Your task to perform on an android device: Open calendar and show me the fourth week of next month Image 0: 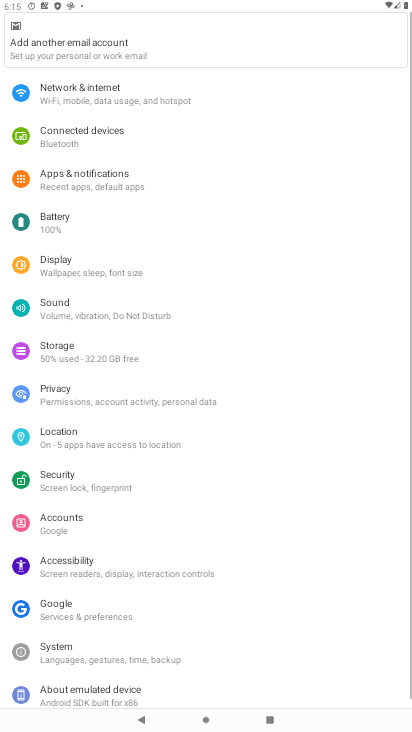
Step 0: drag from (369, 693) to (409, 524)
Your task to perform on an android device: Open calendar and show me the fourth week of next month Image 1: 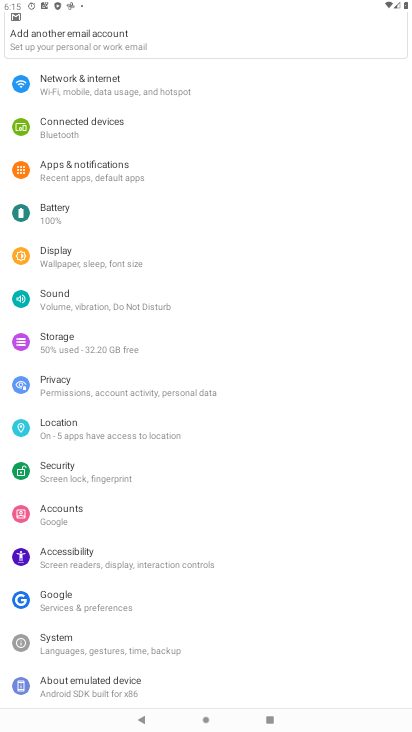
Step 1: press home button
Your task to perform on an android device: Open calendar and show me the fourth week of next month Image 2: 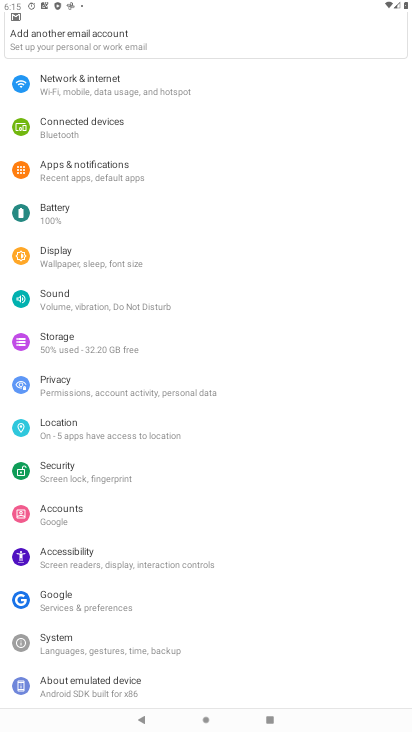
Step 2: drag from (409, 524) to (409, 306)
Your task to perform on an android device: Open calendar and show me the fourth week of next month Image 3: 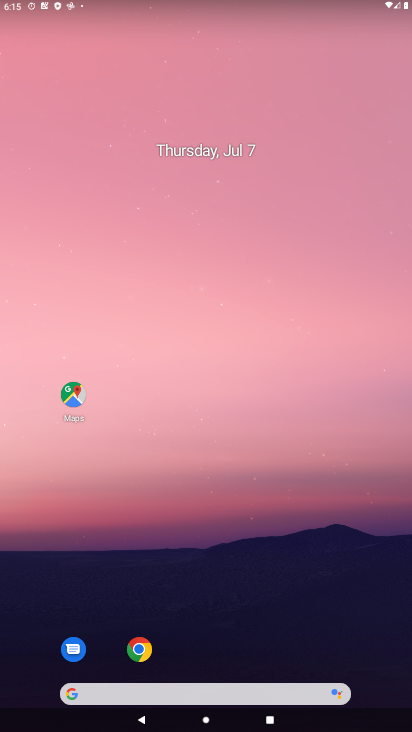
Step 3: drag from (373, 656) to (326, 74)
Your task to perform on an android device: Open calendar and show me the fourth week of next month Image 4: 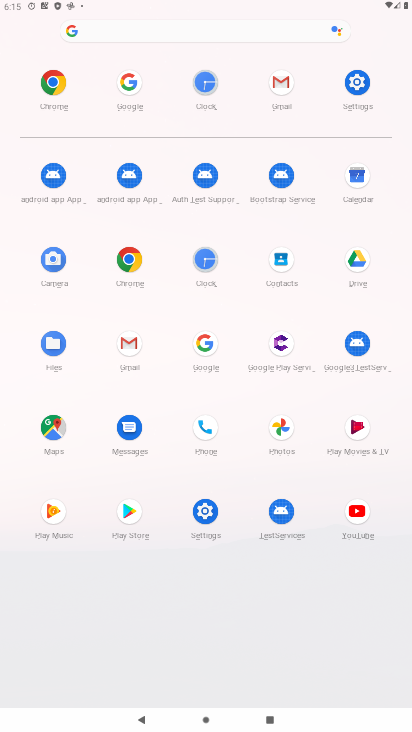
Step 4: click (353, 178)
Your task to perform on an android device: Open calendar and show me the fourth week of next month Image 5: 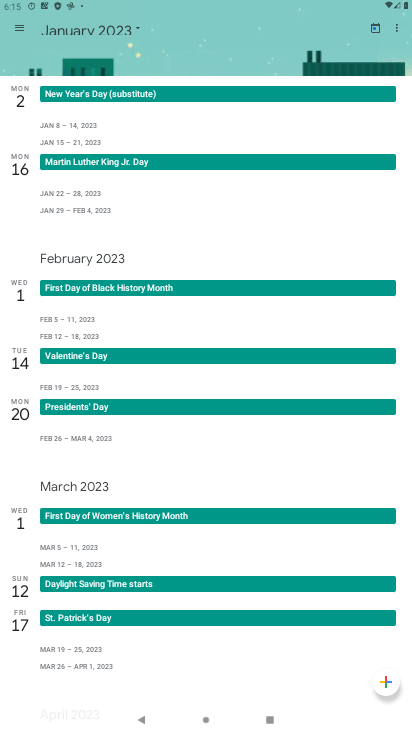
Step 5: click (74, 32)
Your task to perform on an android device: Open calendar and show me the fourth week of next month Image 6: 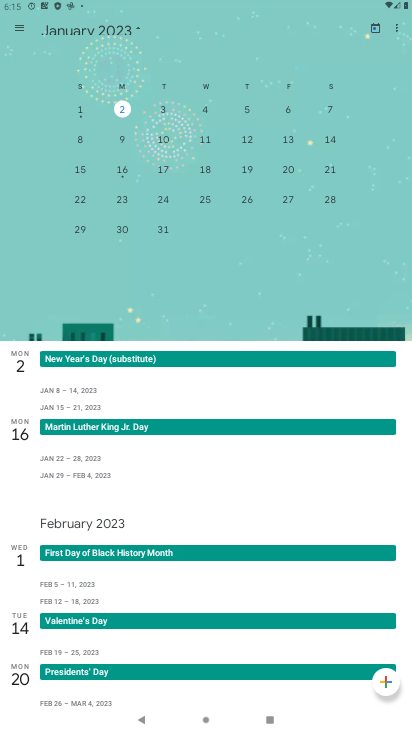
Step 6: drag from (306, 187) to (20, 186)
Your task to perform on an android device: Open calendar and show me the fourth week of next month Image 7: 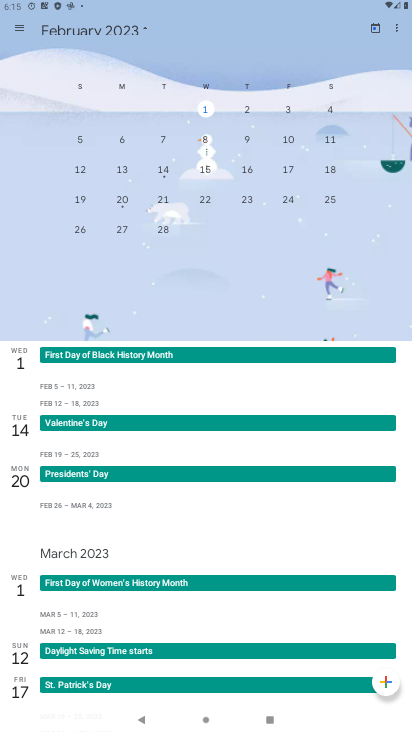
Step 7: click (162, 229)
Your task to perform on an android device: Open calendar and show me the fourth week of next month Image 8: 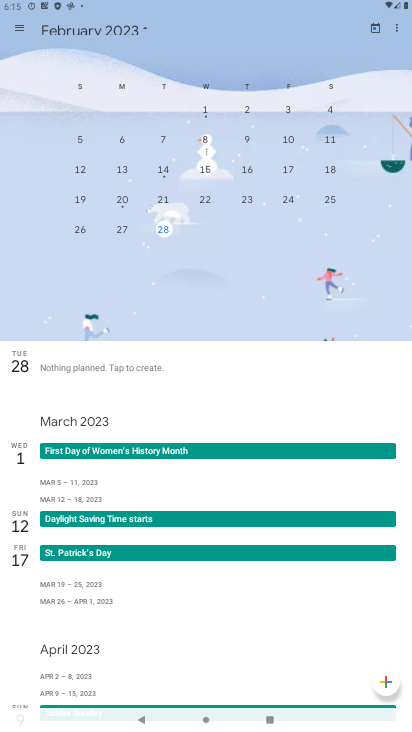
Step 8: task complete